Your task to perform on an android device: Go to CNN.com Image 0: 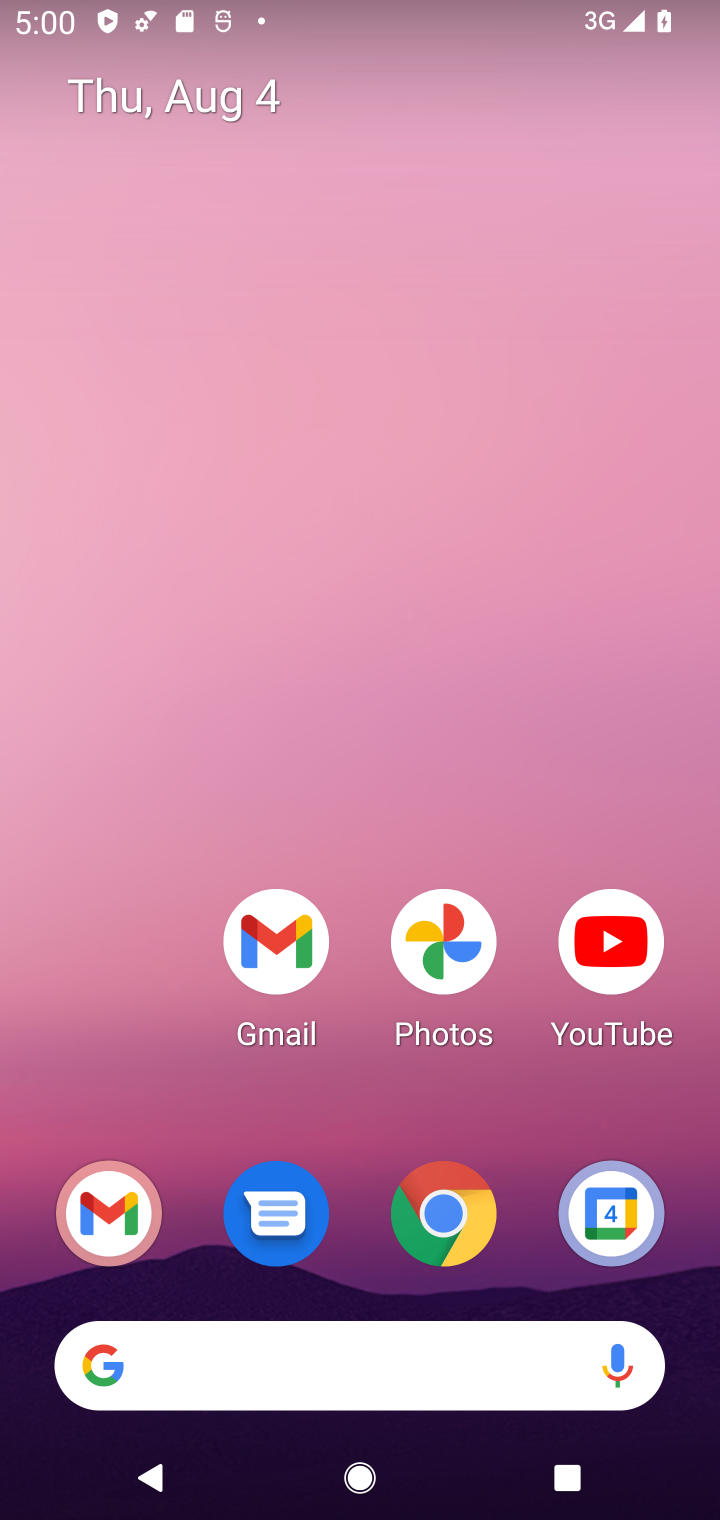
Step 0: press home button
Your task to perform on an android device: Go to CNN.com Image 1: 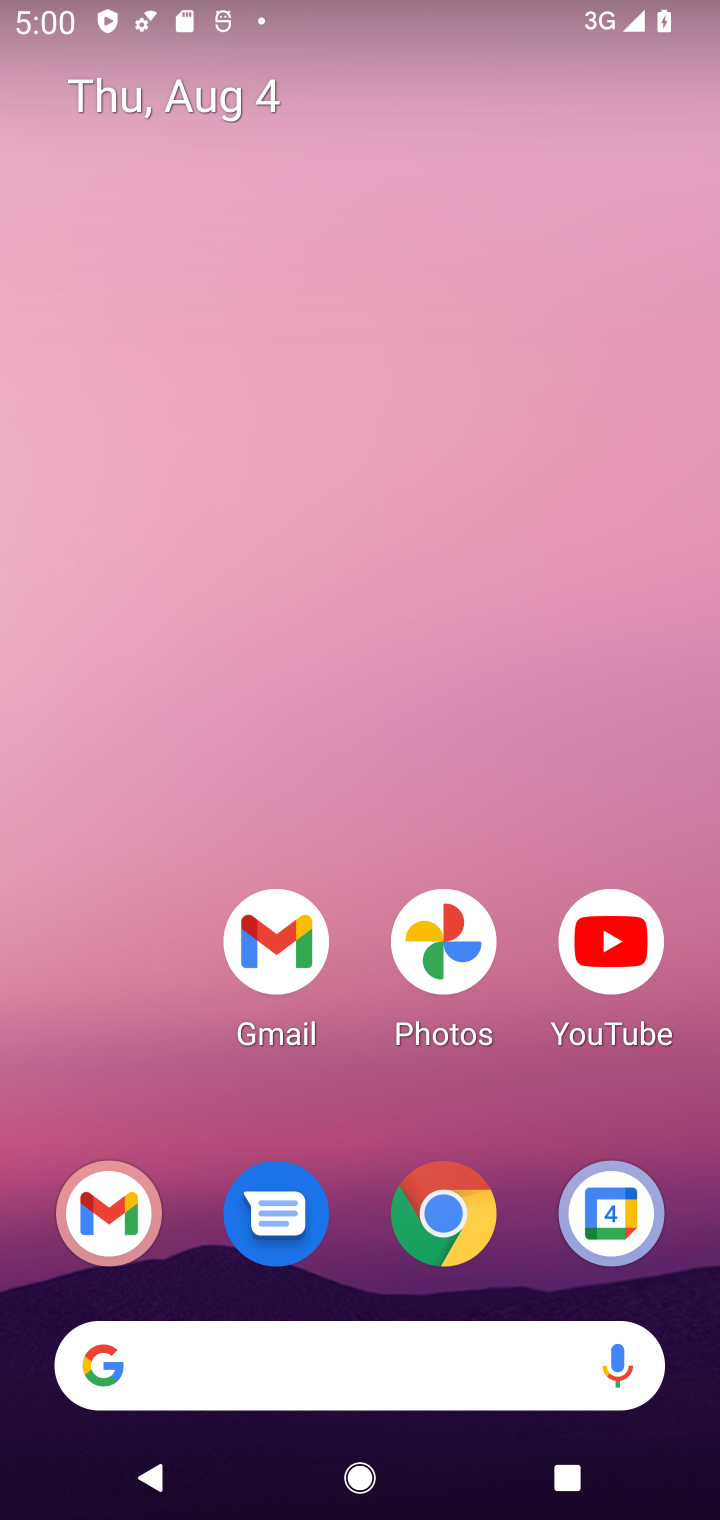
Step 1: drag from (176, 1013) to (197, 285)
Your task to perform on an android device: Go to CNN.com Image 2: 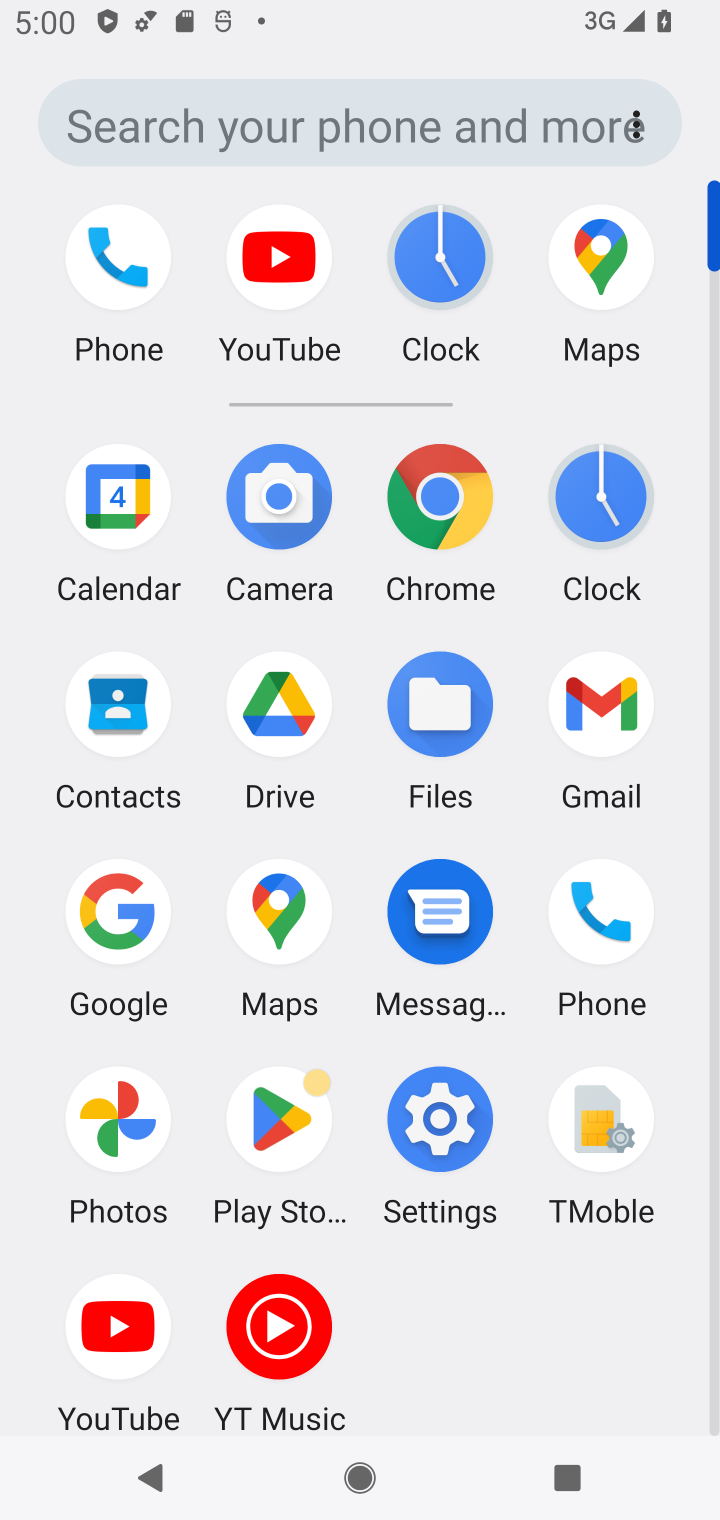
Step 2: click (453, 505)
Your task to perform on an android device: Go to CNN.com Image 3: 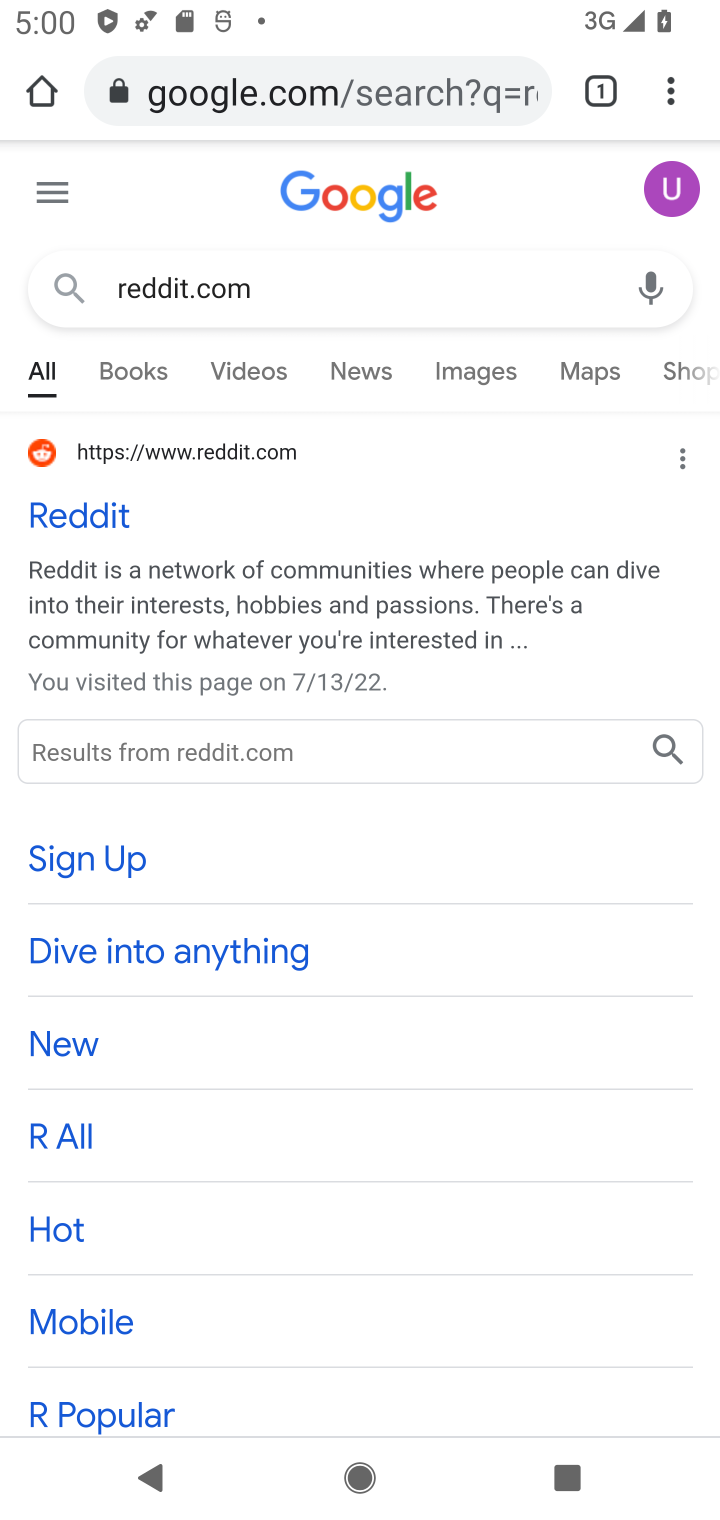
Step 3: click (412, 82)
Your task to perform on an android device: Go to CNN.com Image 4: 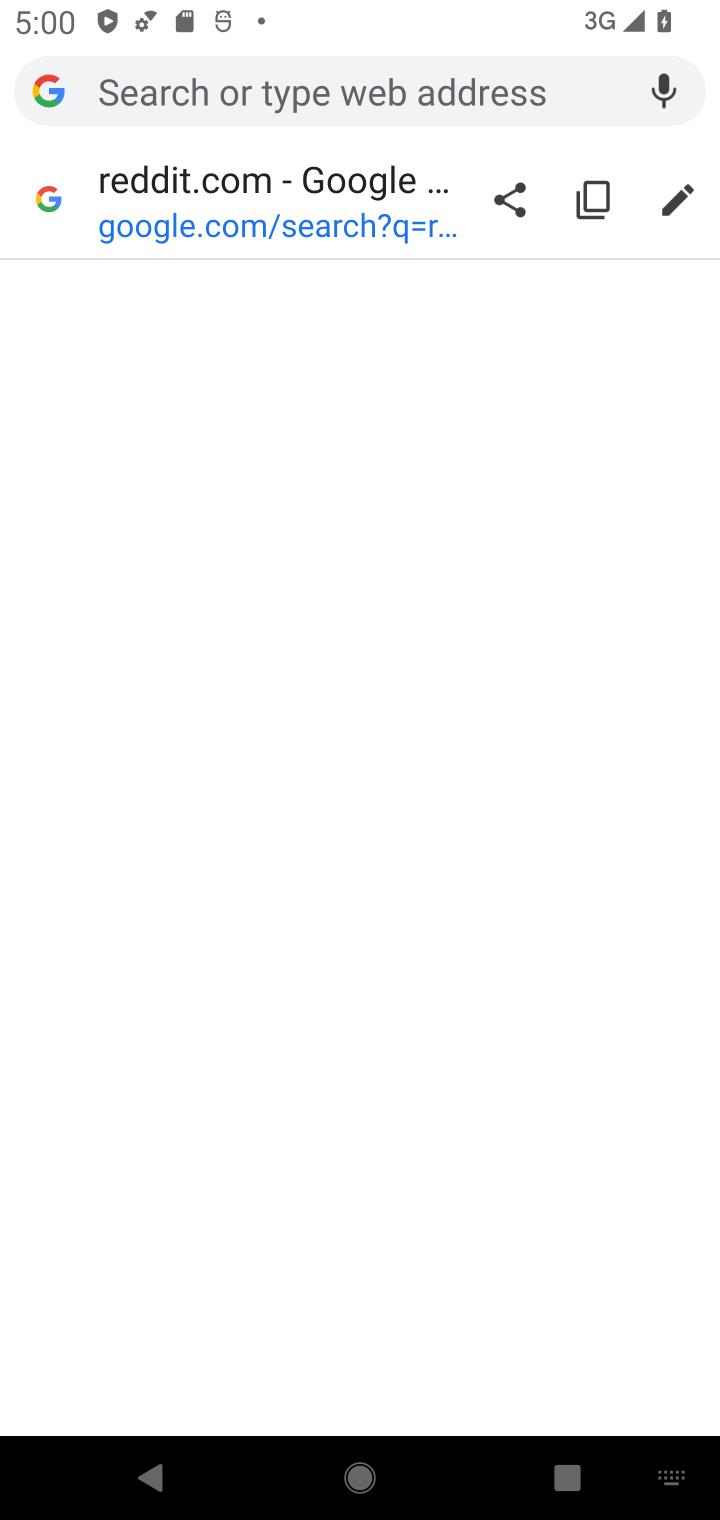
Step 4: click (412, 82)
Your task to perform on an android device: Go to CNN.com Image 5: 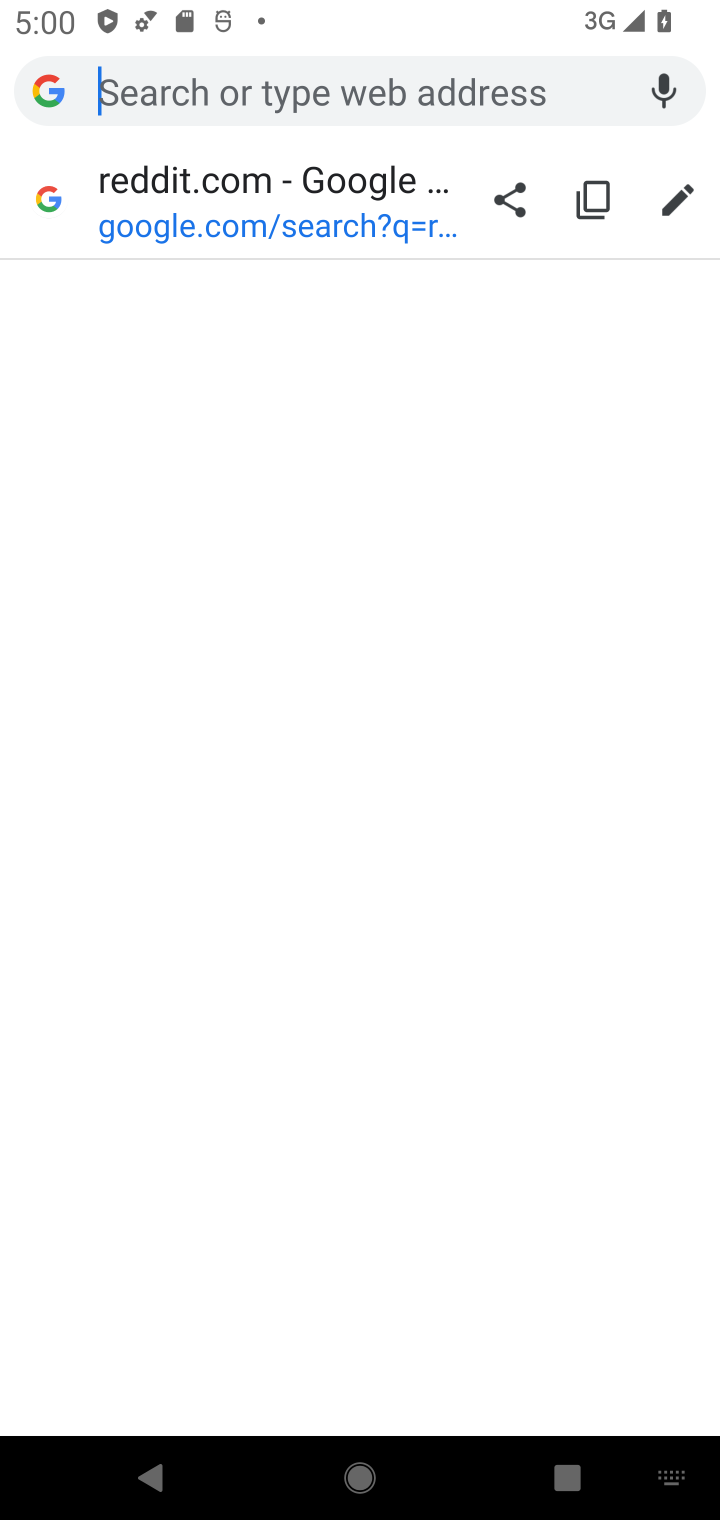
Step 5: type "cnn.com"
Your task to perform on an android device: Go to CNN.com Image 6: 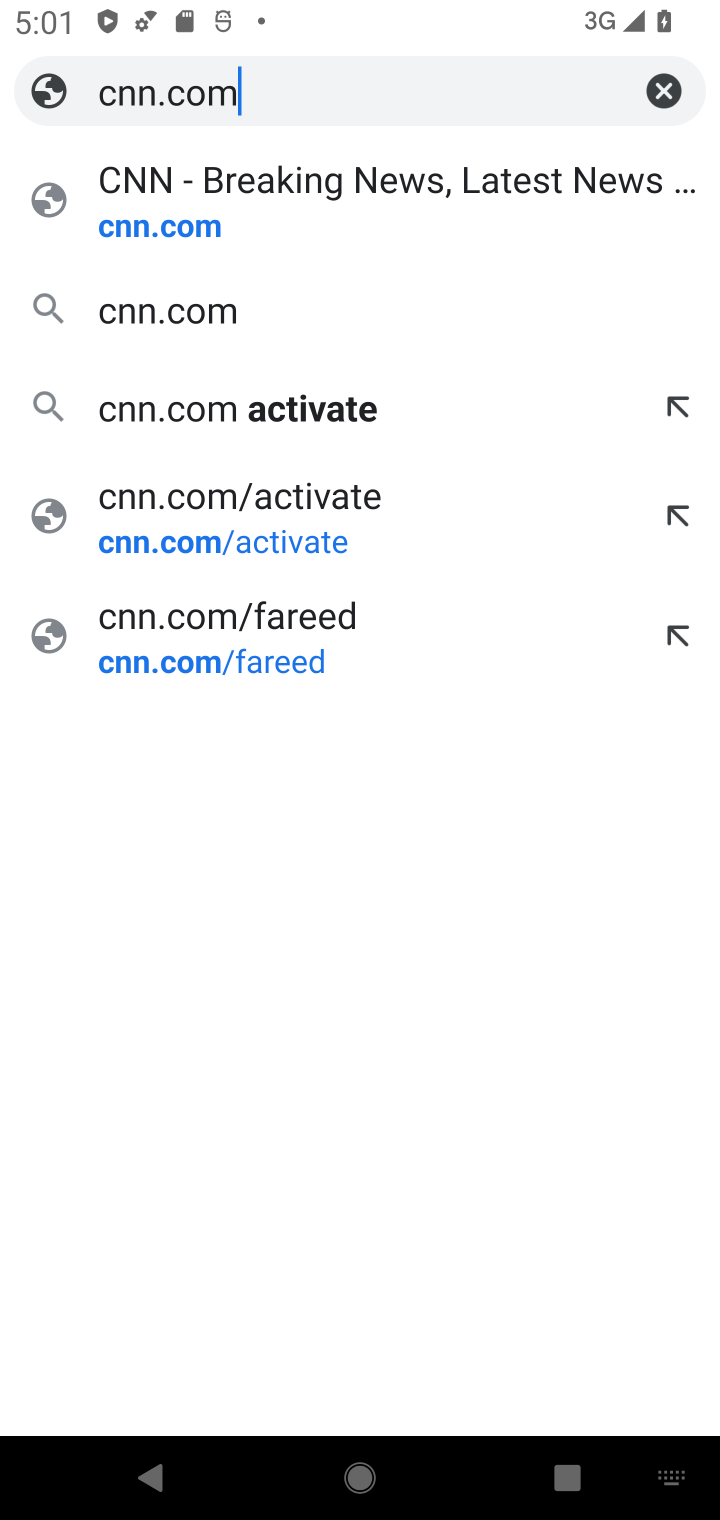
Step 6: click (222, 310)
Your task to perform on an android device: Go to CNN.com Image 7: 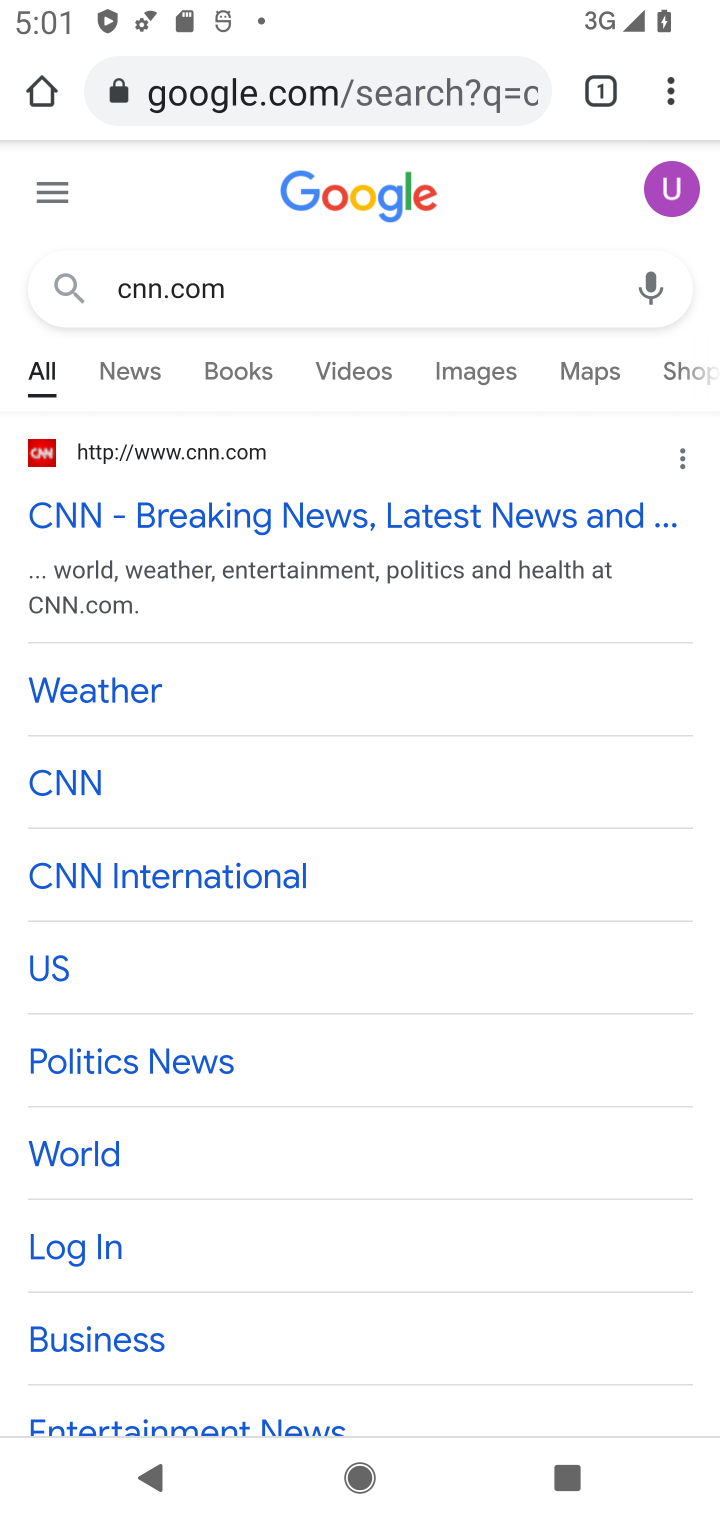
Step 7: task complete